Your task to perform on an android device: Go to Yahoo.com Image 0: 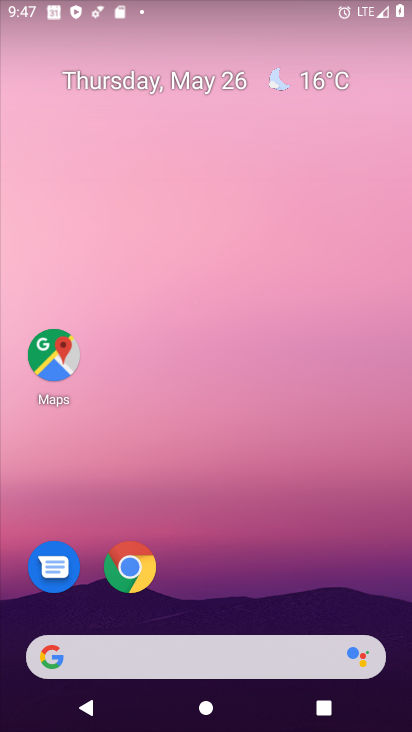
Step 0: click (125, 565)
Your task to perform on an android device: Go to Yahoo.com Image 1: 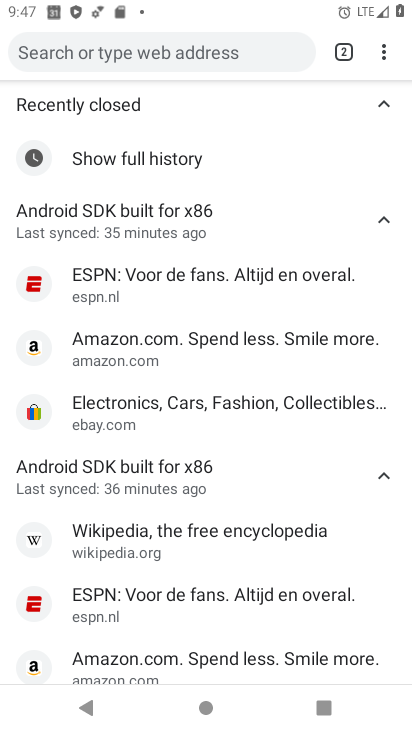
Step 1: click (155, 54)
Your task to perform on an android device: Go to Yahoo.com Image 2: 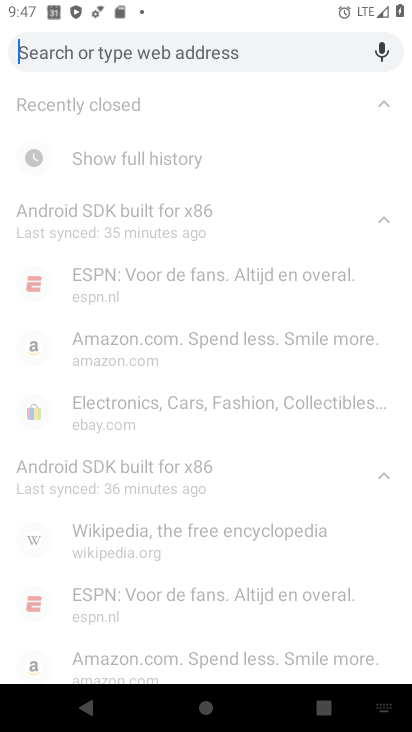
Step 2: type "Yahoo.com"
Your task to perform on an android device: Go to Yahoo.com Image 3: 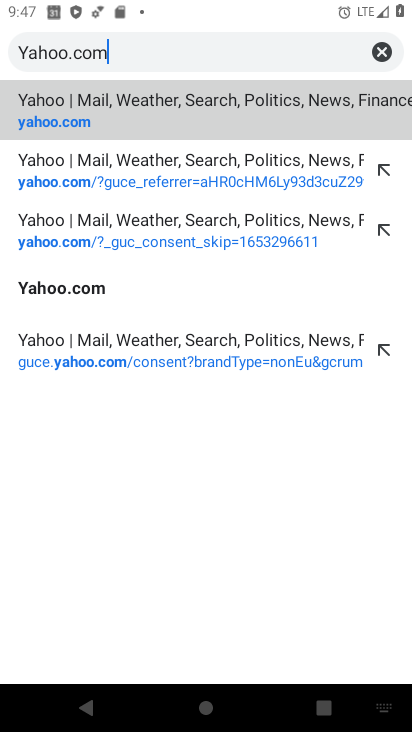
Step 3: click (62, 281)
Your task to perform on an android device: Go to Yahoo.com Image 4: 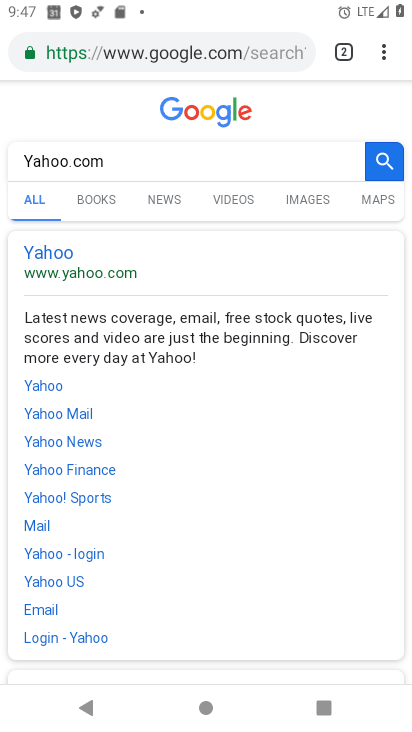
Step 4: task complete